Your task to perform on an android device: Go to eBay Image 0: 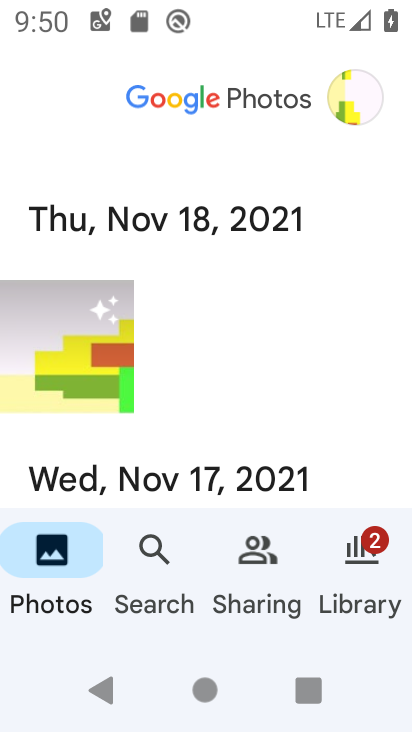
Step 0: press home button
Your task to perform on an android device: Go to eBay Image 1: 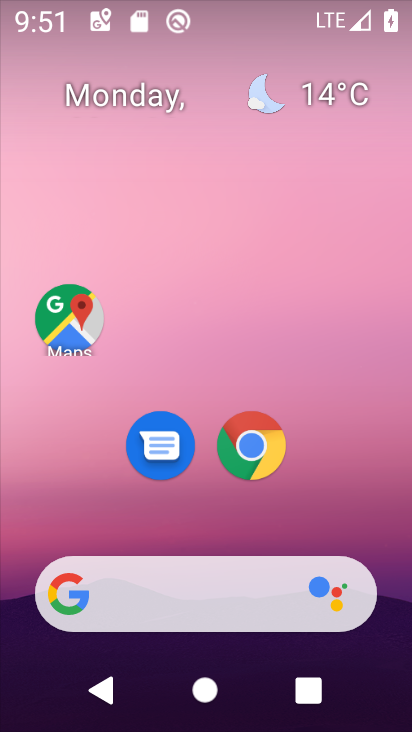
Step 1: drag from (204, 518) to (215, 126)
Your task to perform on an android device: Go to eBay Image 2: 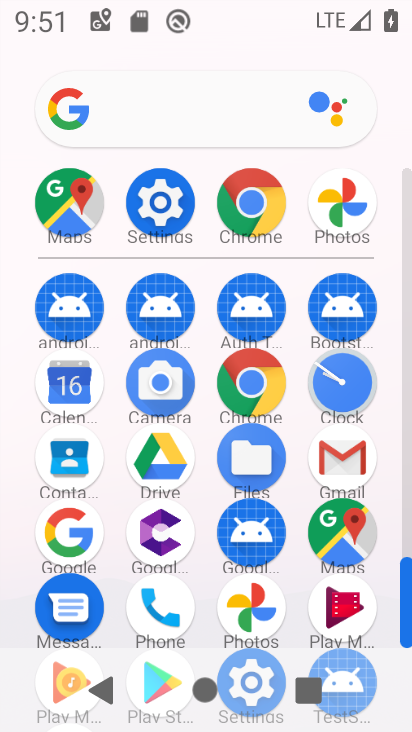
Step 2: click (244, 368)
Your task to perform on an android device: Go to eBay Image 3: 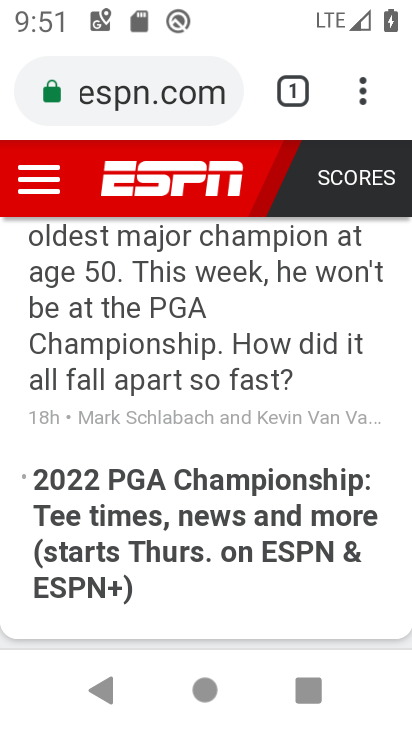
Step 3: click (295, 88)
Your task to perform on an android device: Go to eBay Image 4: 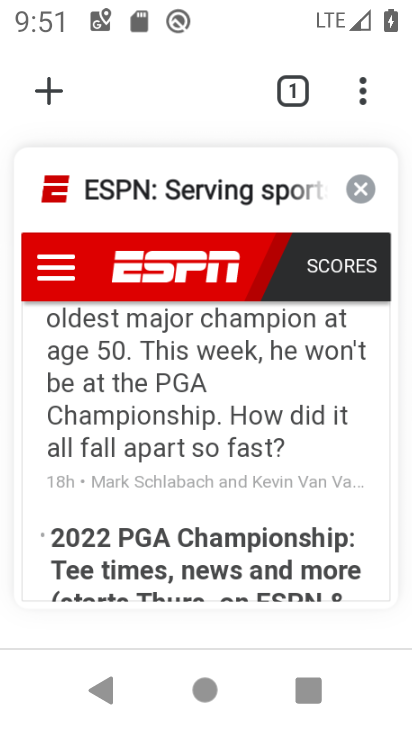
Step 4: click (362, 188)
Your task to perform on an android device: Go to eBay Image 5: 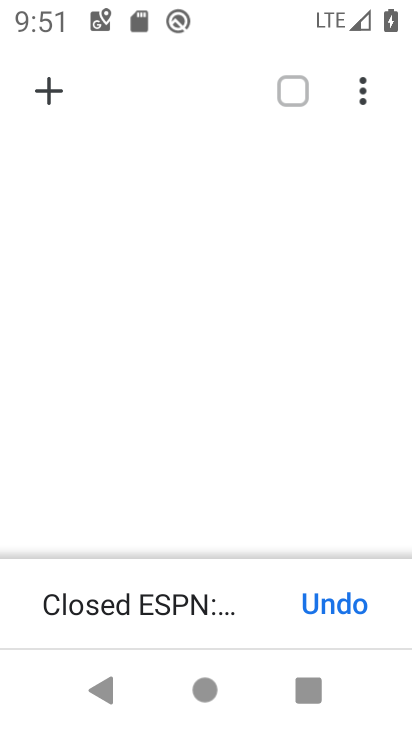
Step 5: click (54, 100)
Your task to perform on an android device: Go to eBay Image 6: 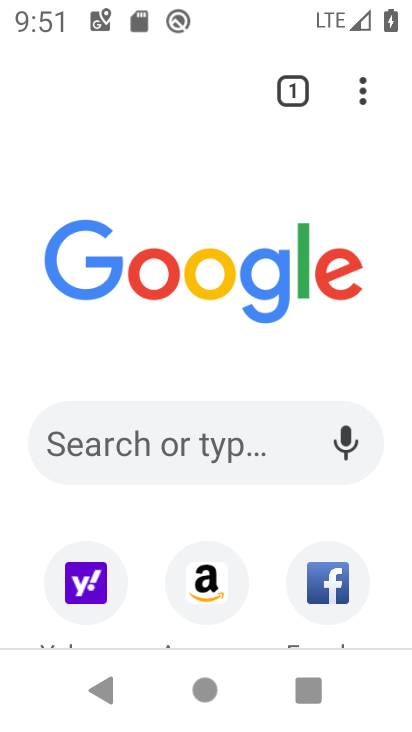
Step 6: drag from (266, 534) to (261, 78)
Your task to perform on an android device: Go to eBay Image 7: 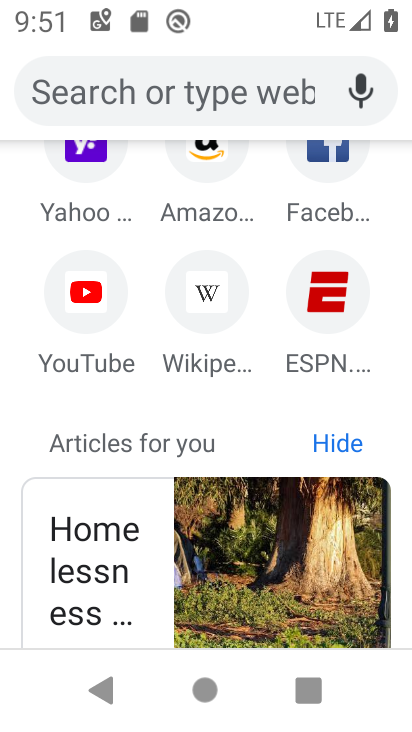
Step 7: click (155, 92)
Your task to perform on an android device: Go to eBay Image 8: 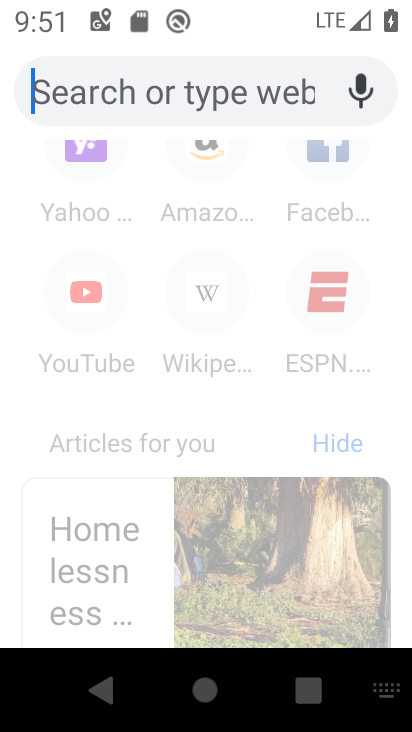
Step 8: type "ebay"
Your task to perform on an android device: Go to eBay Image 9: 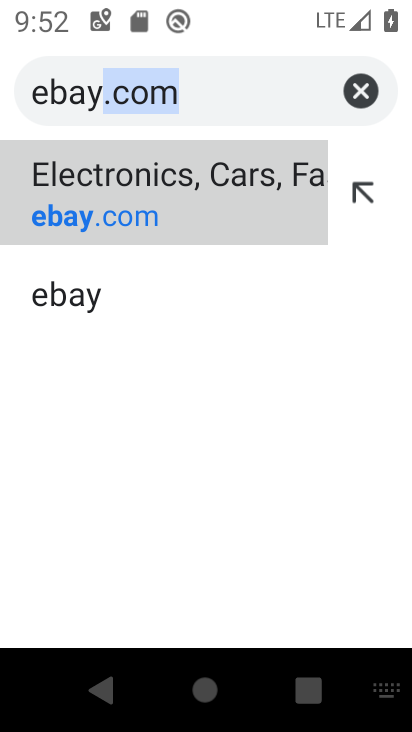
Step 9: click (145, 195)
Your task to perform on an android device: Go to eBay Image 10: 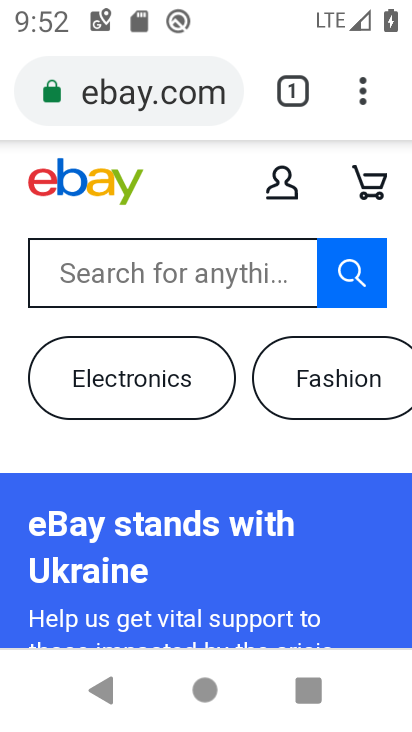
Step 10: task complete